Your task to perform on an android device: Open notification settings Image 0: 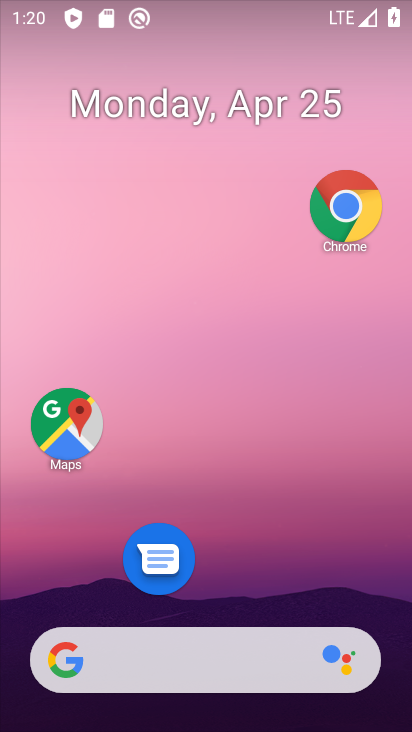
Step 0: drag from (275, 470) to (235, 164)
Your task to perform on an android device: Open notification settings Image 1: 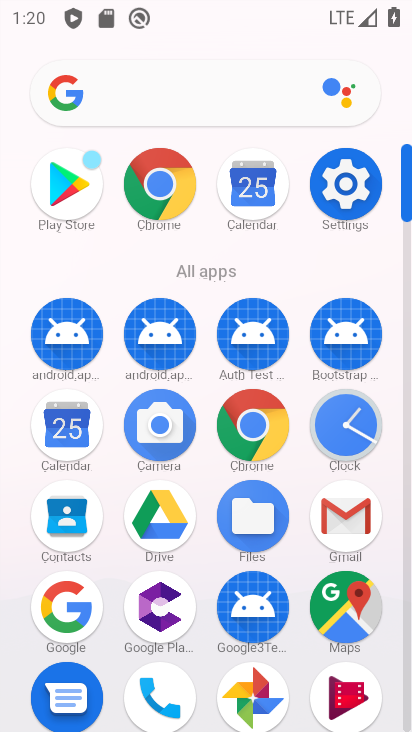
Step 1: click (343, 192)
Your task to perform on an android device: Open notification settings Image 2: 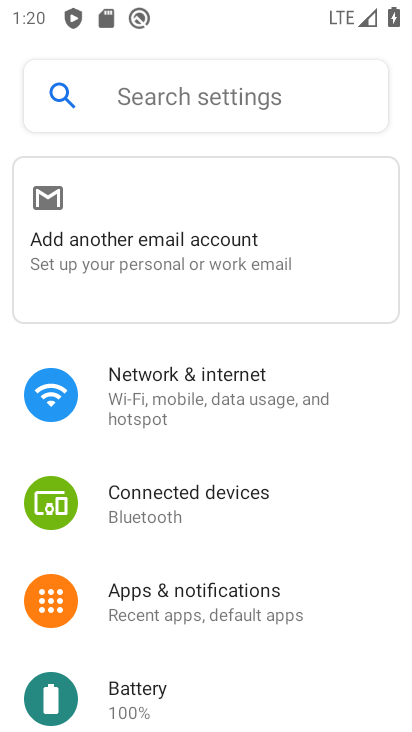
Step 2: click (193, 605)
Your task to perform on an android device: Open notification settings Image 3: 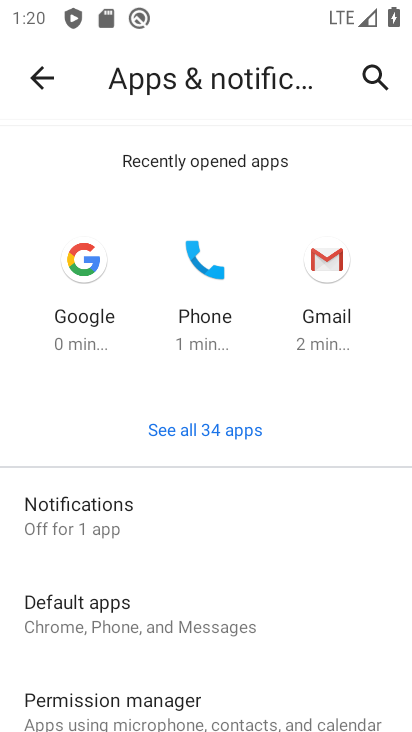
Step 3: click (110, 528)
Your task to perform on an android device: Open notification settings Image 4: 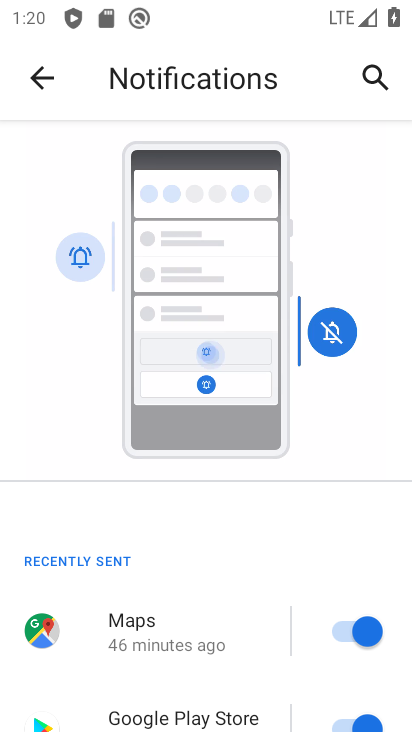
Step 4: task complete